Your task to perform on an android device: turn on the 12-hour format for clock Image 0: 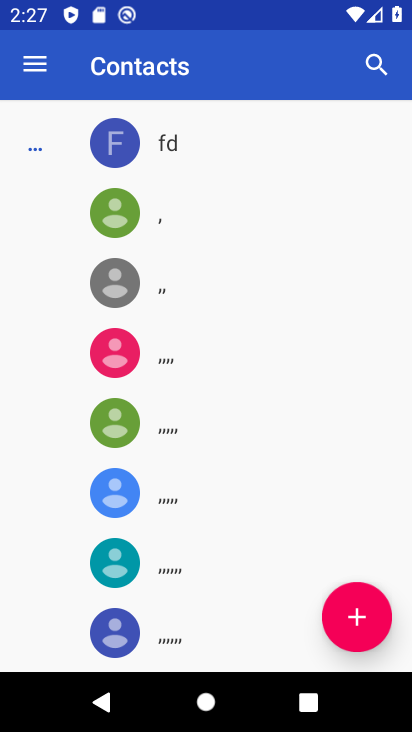
Step 0: press home button
Your task to perform on an android device: turn on the 12-hour format for clock Image 1: 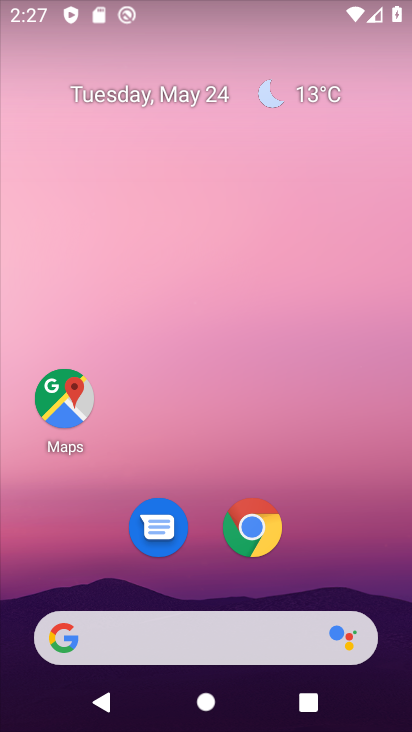
Step 1: drag from (206, 591) to (228, 16)
Your task to perform on an android device: turn on the 12-hour format for clock Image 2: 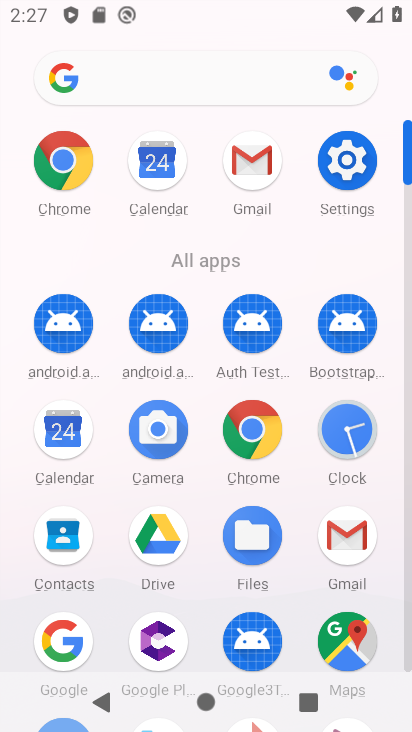
Step 2: click (344, 434)
Your task to perform on an android device: turn on the 12-hour format for clock Image 3: 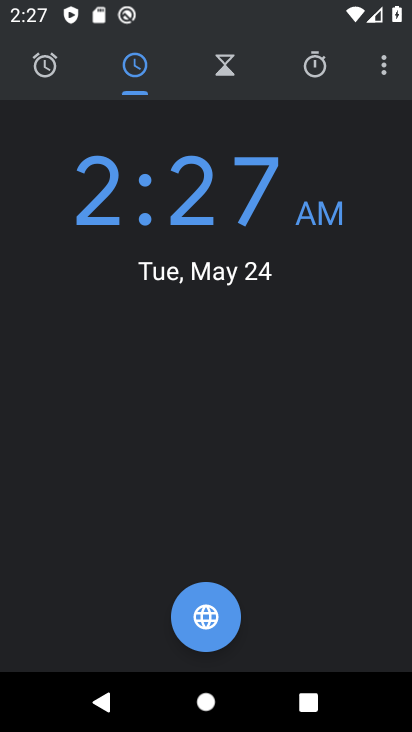
Step 3: click (385, 74)
Your task to perform on an android device: turn on the 12-hour format for clock Image 4: 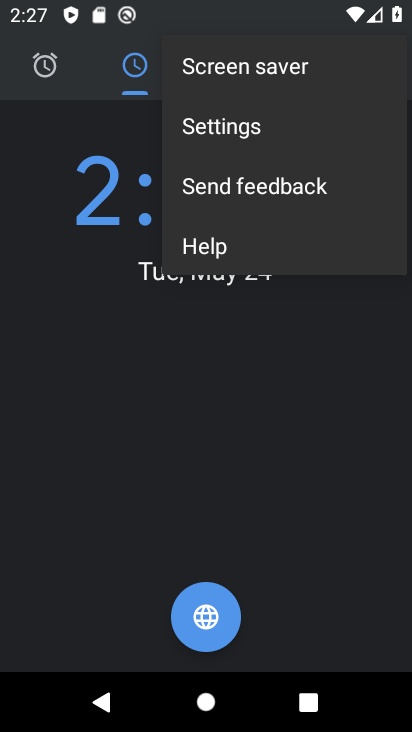
Step 4: click (218, 132)
Your task to perform on an android device: turn on the 12-hour format for clock Image 5: 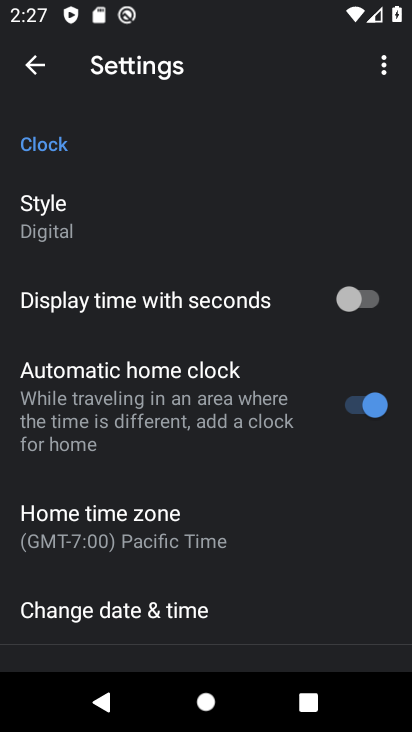
Step 5: click (174, 618)
Your task to perform on an android device: turn on the 12-hour format for clock Image 6: 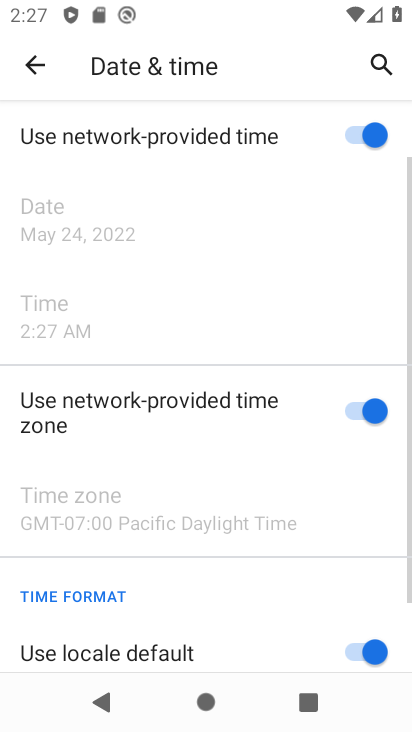
Step 6: task complete